Your task to perform on an android device: What's the news in Cambodia? Image 0: 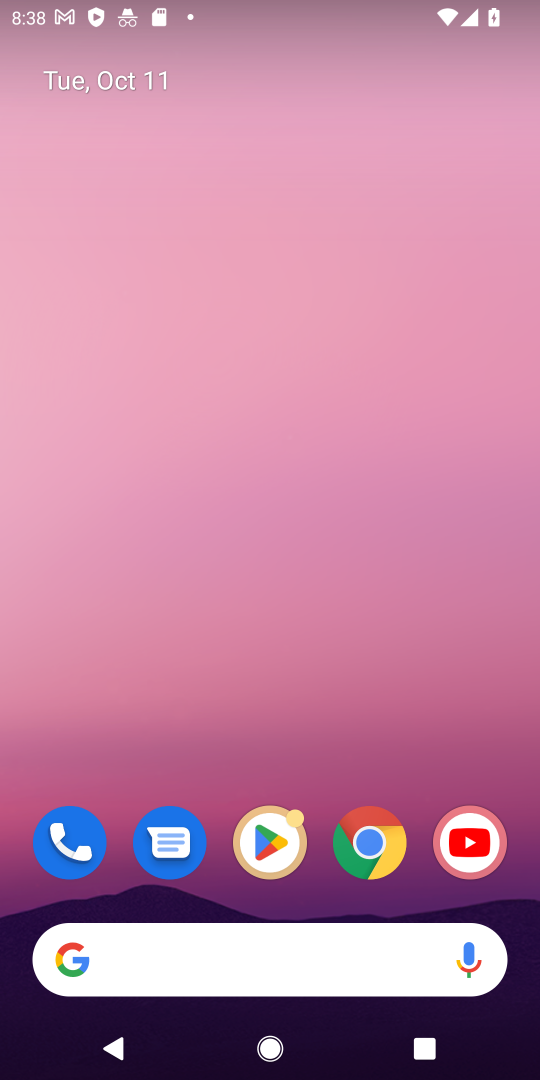
Step 0: click (278, 961)
Your task to perform on an android device: What's the news in Cambodia? Image 1: 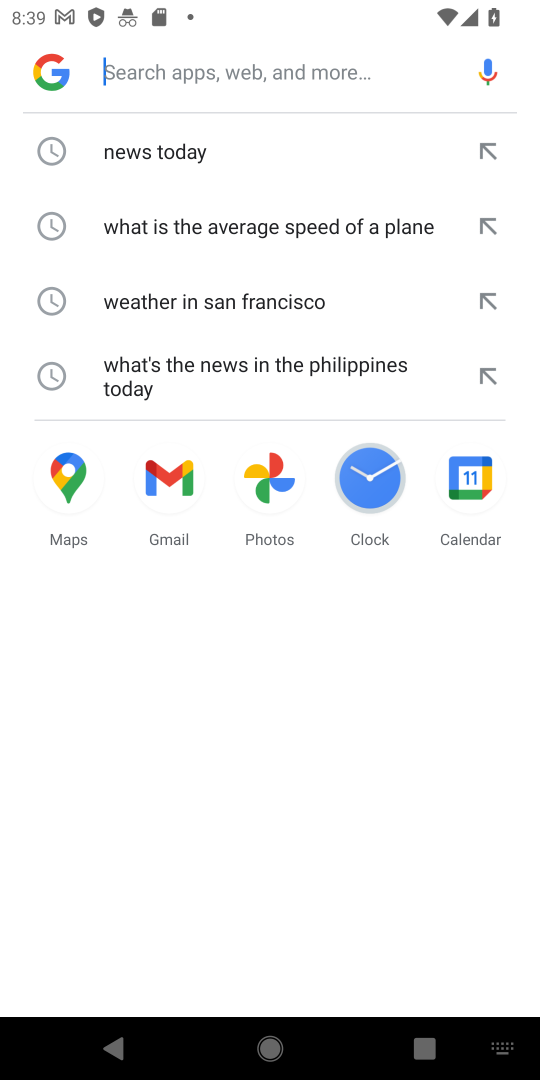
Step 1: type "What's the news in Cambodia?"
Your task to perform on an android device: What's the news in Cambodia? Image 2: 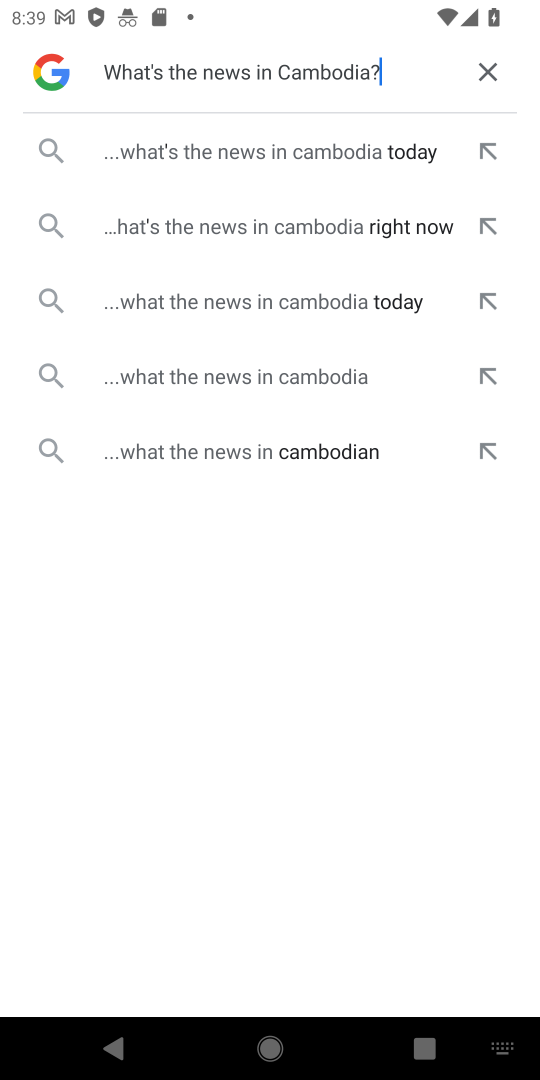
Step 2: click (369, 147)
Your task to perform on an android device: What's the news in Cambodia? Image 3: 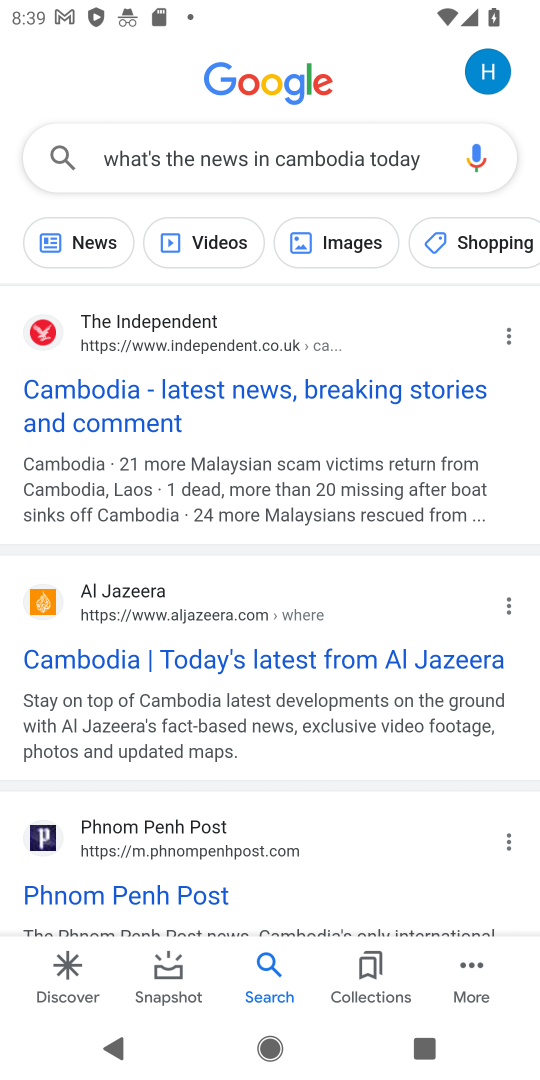
Step 3: click (92, 258)
Your task to perform on an android device: What's the news in Cambodia? Image 4: 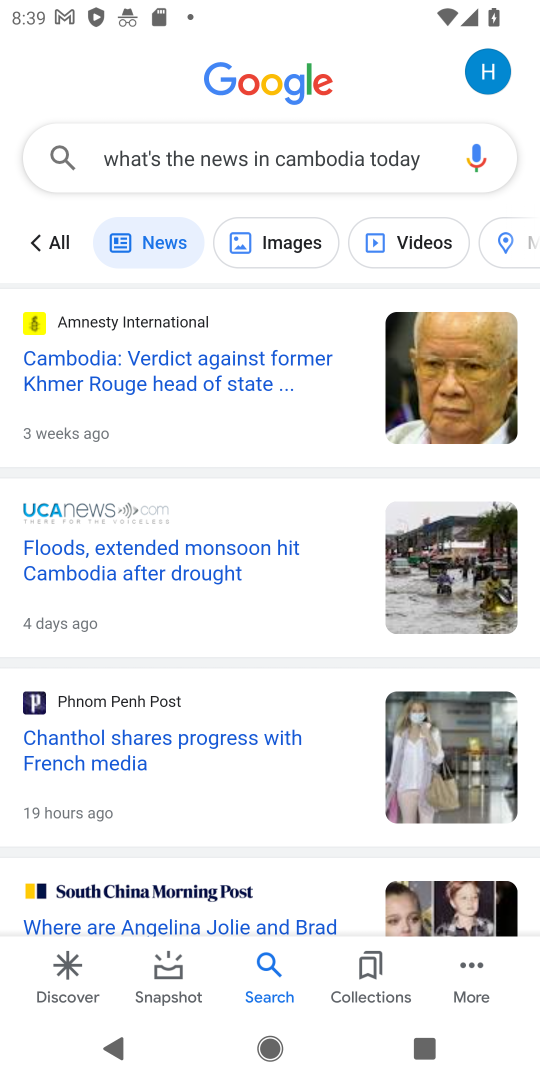
Step 4: task complete